Your task to perform on an android device: Go to CNN.com Image 0: 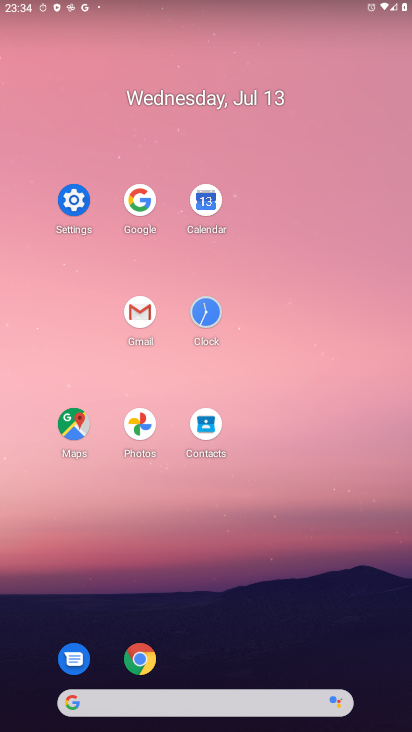
Step 0: click (150, 656)
Your task to perform on an android device: Go to CNN.com Image 1: 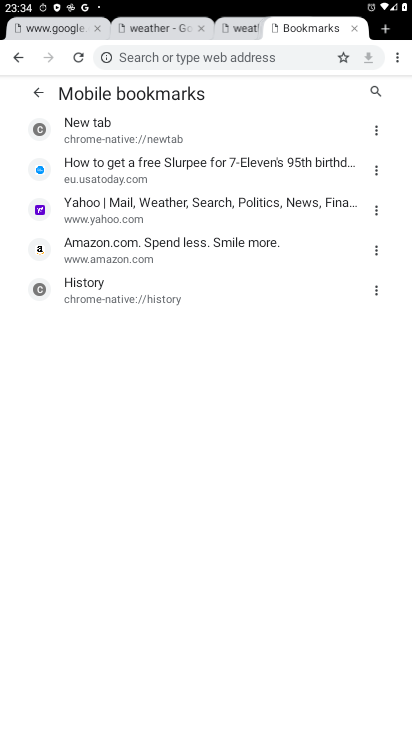
Step 1: click (384, 20)
Your task to perform on an android device: Go to CNN.com Image 2: 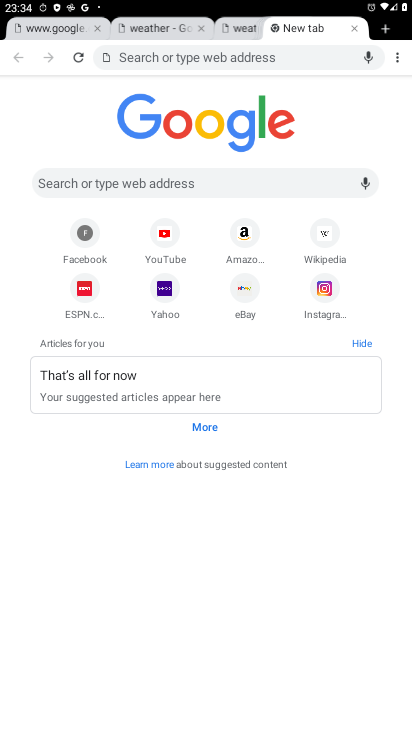
Step 2: click (240, 189)
Your task to perform on an android device: Go to CNN.com Image 3: 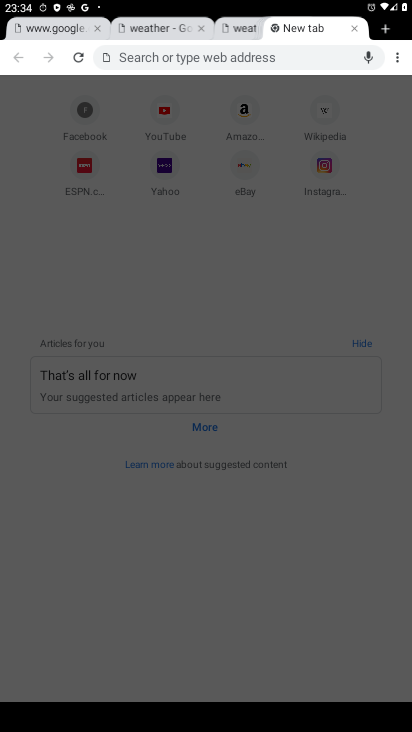
Step 3: type "cnn"
Your task to perform on an android device: Go to CNN.com Image 4: 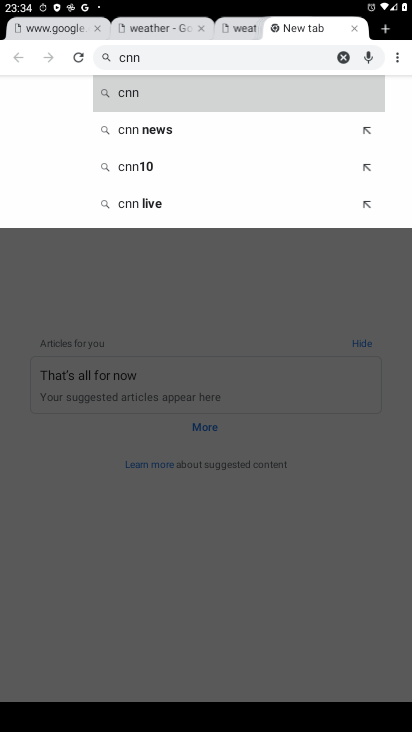
Step 4: click (225, 101)
Your task to perform on an android device: Go to CNN.com Image 5: 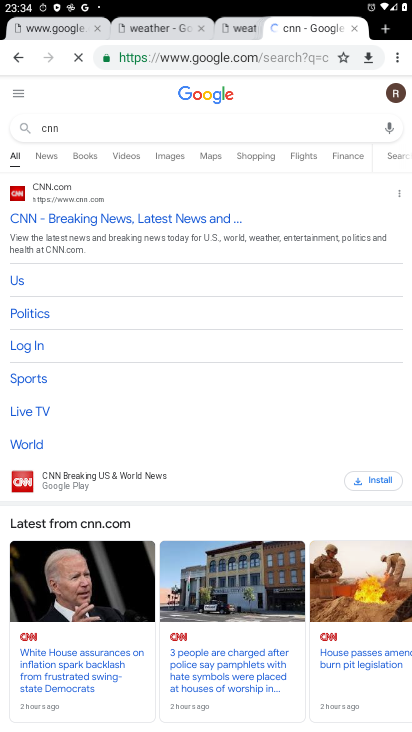
Step 5: click (109, 217)
Your task to perform on an android device: Go to CNN.com Image 6: 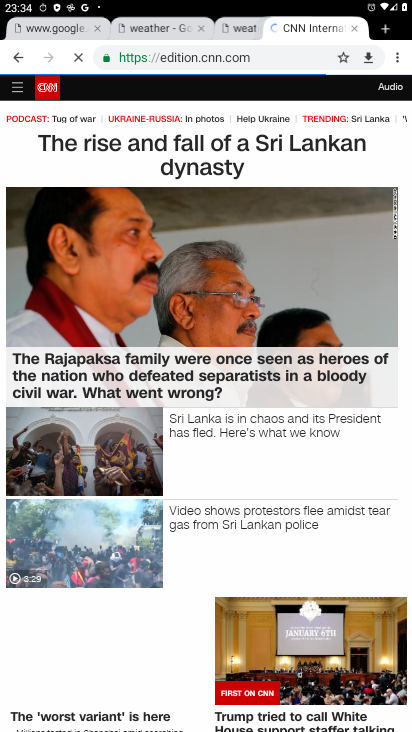
Step 6: task complete